Your task to perform on an android device: Open battery settings Image 0: 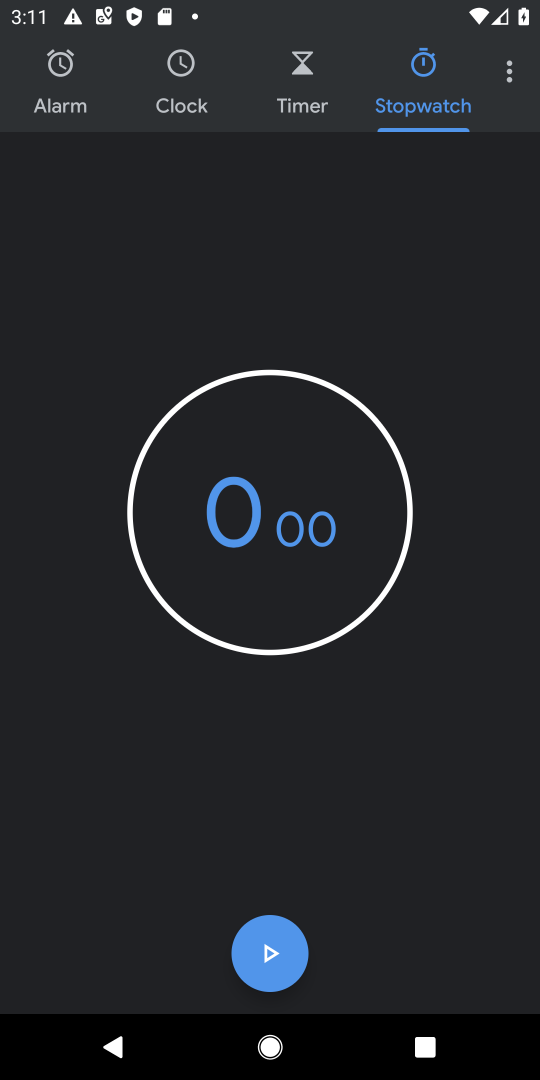
Step 0: press back button
Your task to perform on an android device: Open battery settings Image 1: 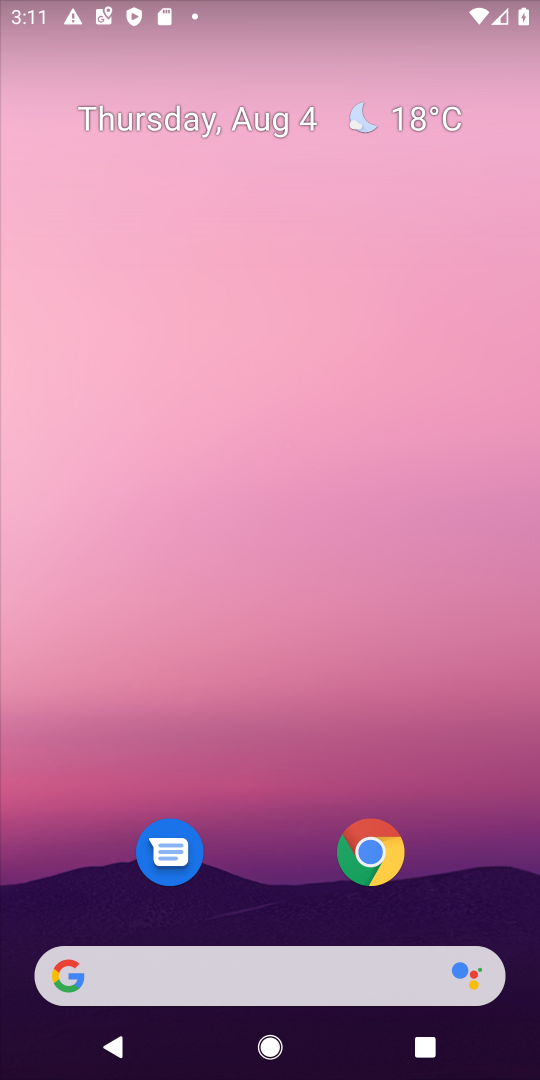
Step 1: drag from (267, 693) to (315, 81)
Your task to perform on an android device: Open battery settings Image 2: 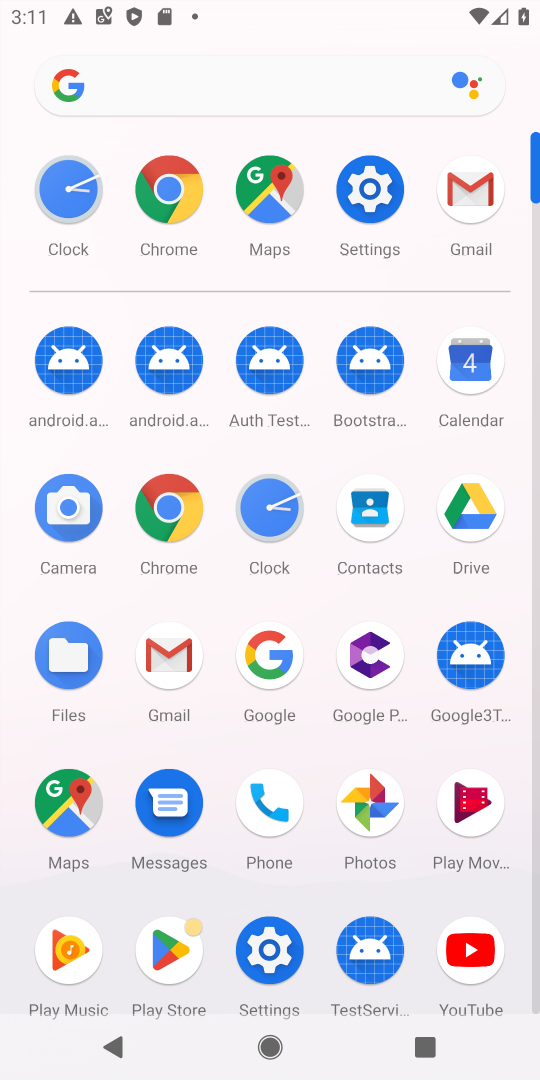
Step 2: click (354, 171)
Your task to perform on an android device: Open battery settings Image 3: 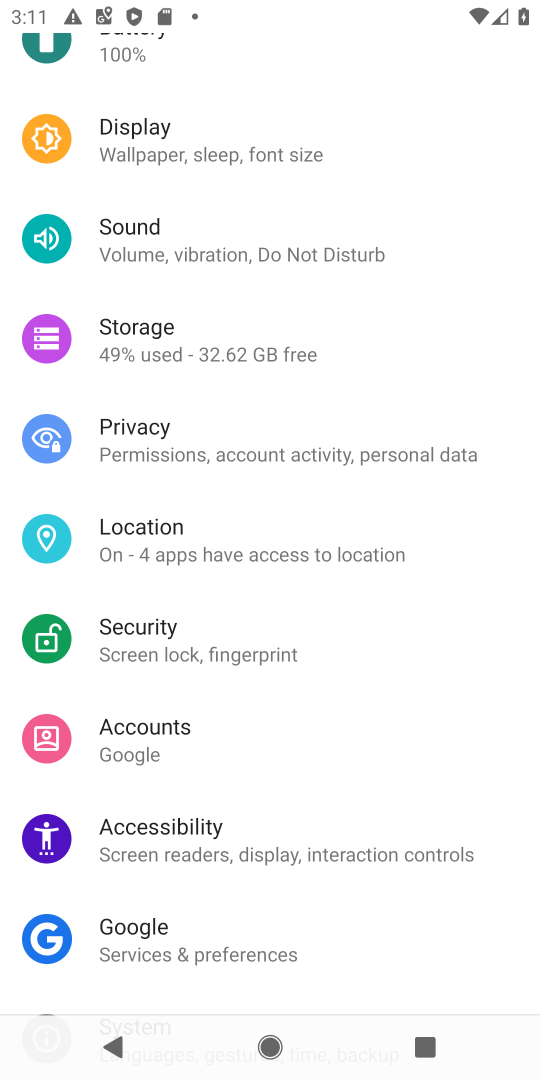
Step 3: drag from (233, 231) to (224, 941)
Your task to perform on an android device: Open battery settings Image 4: 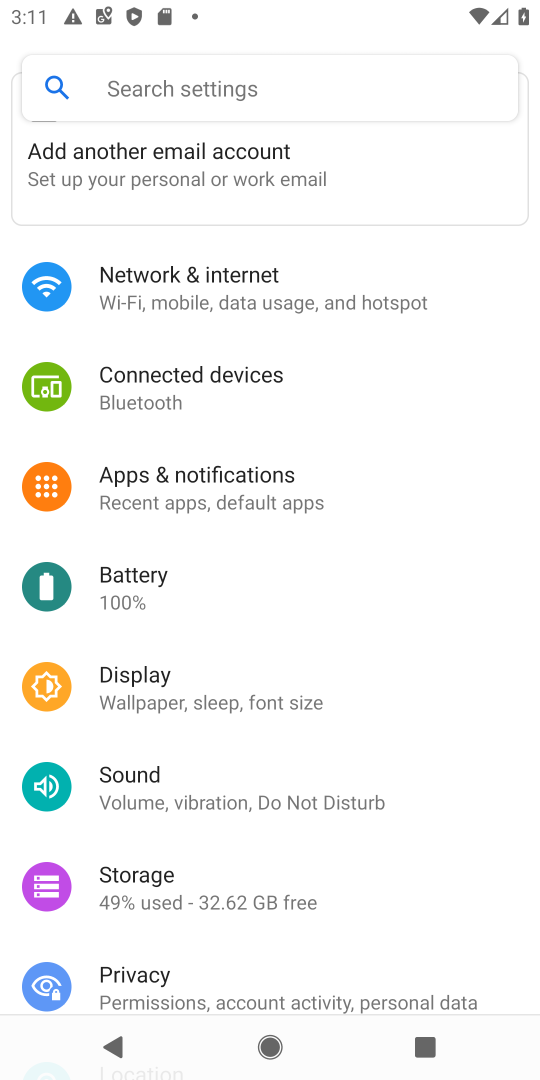
Step 4: click (137, 577)
Your task to perform on an android device: Open battery settings Image 5: 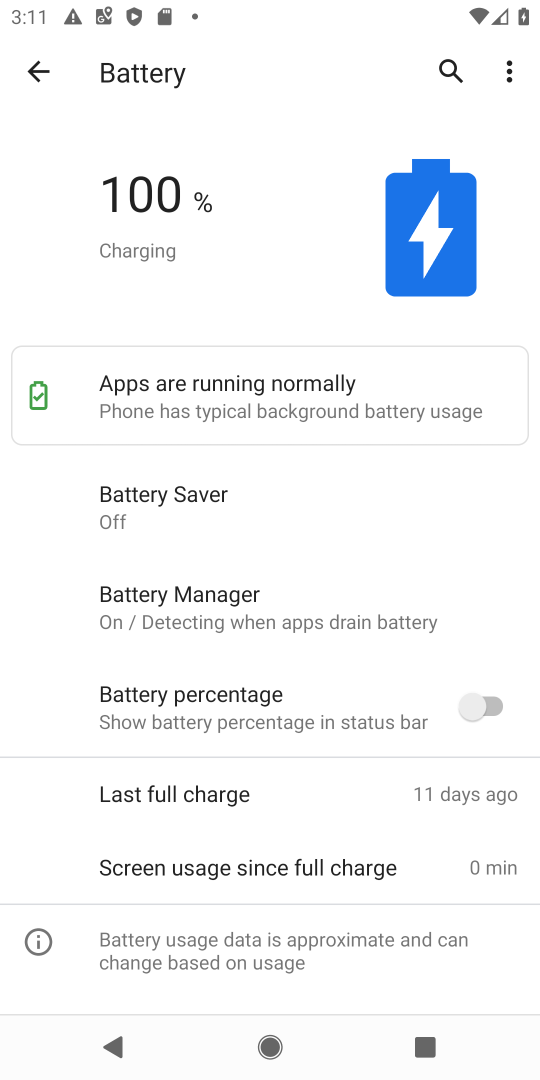
Step 5: task complete